Your task to perform on an android device: allow cookies in the chrome app Image 0: 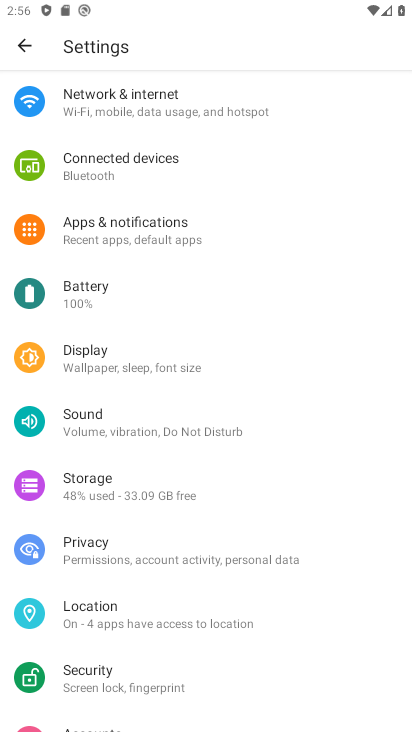
Step 0: press back button
Your task to perform on an android device: allow cookies in the chrome app Image 1: 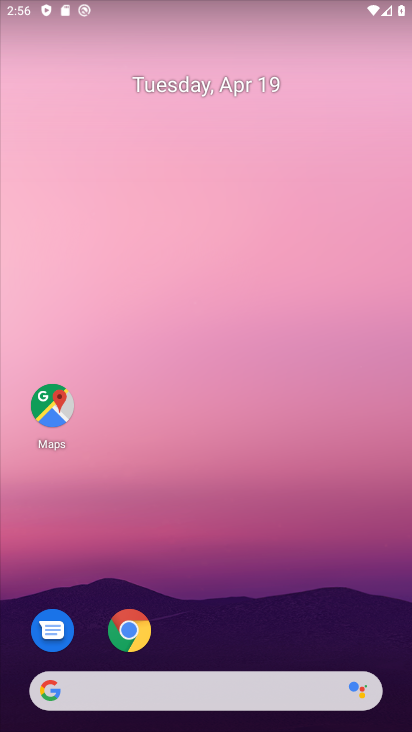
Step 1: click (132, 631)
Your task to perform on an android device: allow cookies in the chrome app Image 2: 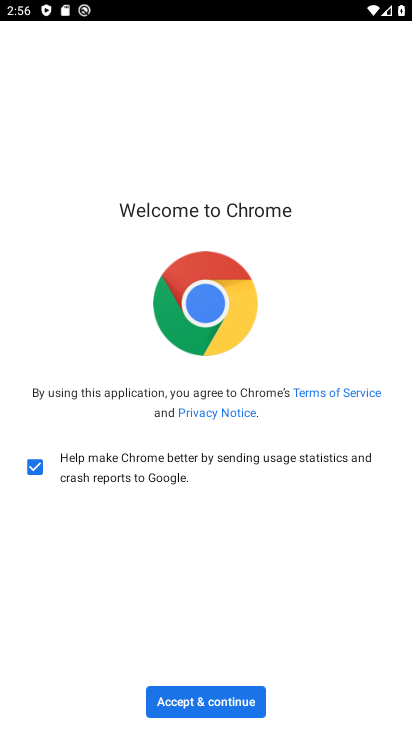
Step 2: click (176, 694)
Your task to perform on an android device: allow cookies in the chrome app Image 3: 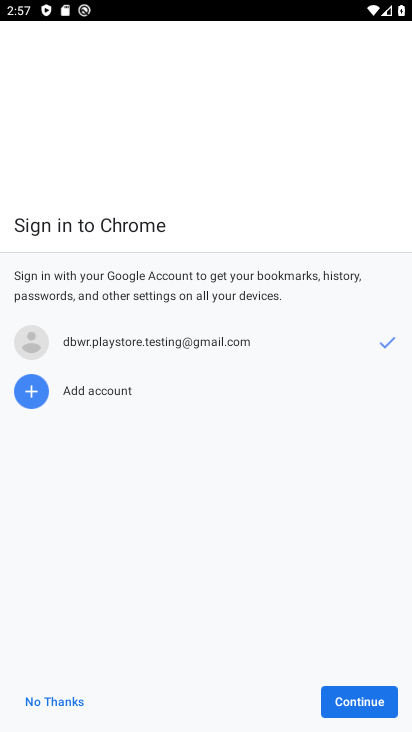
Step 3: click (350, 699)
Your task to perform on an android device: allow cookies in the chrome app Image 4: 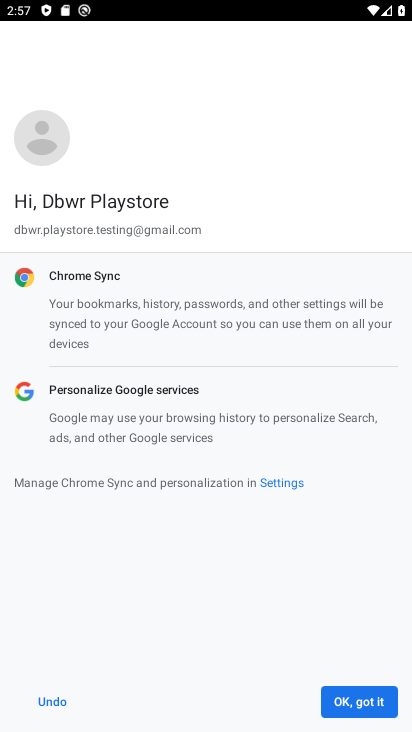
Step 4: click (350, 699)
Your task to perform on an android device: allow cookies in the chrome app Image 5: 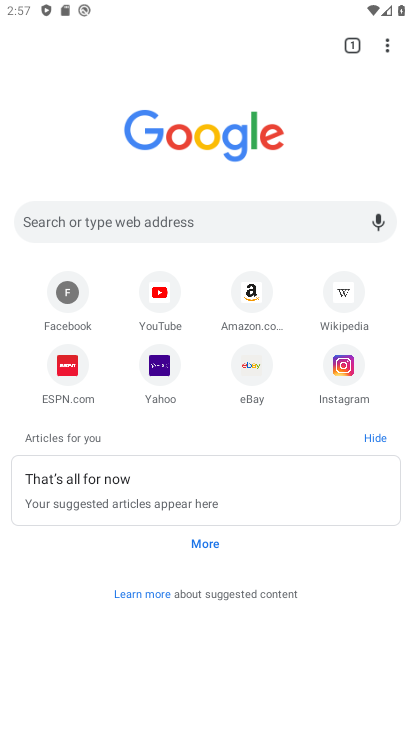
Step 5: click (385, 47)
Your task to perform on an android device: allow cookies in the chrome app Image 6: 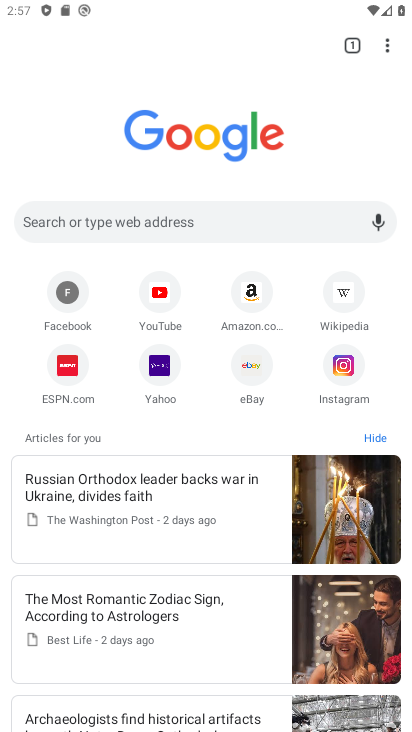
Step 6: click (387, 43)
Your task to perform on an android device: allow cookies in the chrome app Image 7: 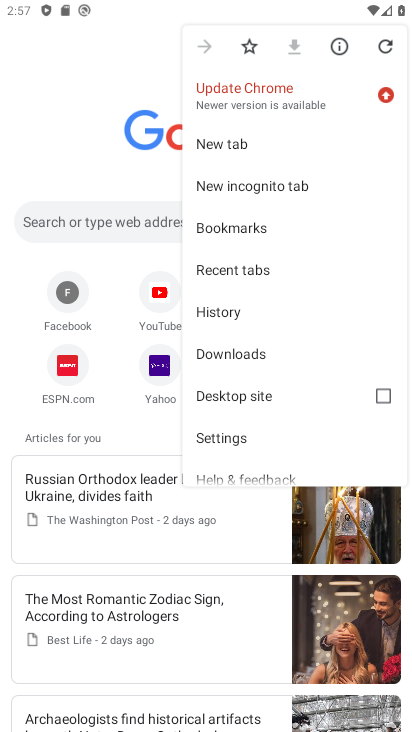
Step 7: click (224, 436)
Your task to perform on an android device: allow cookies in the chrome app Image 8: 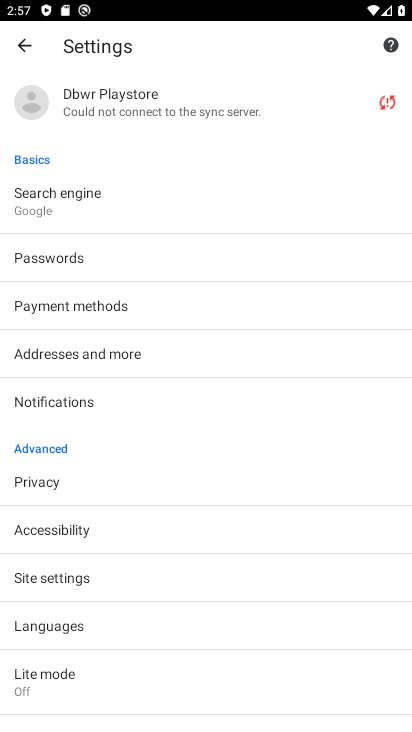
Step 8: click (51, 581)
Your task to perform on an android device: allow cookies in the chrome app Image 9: 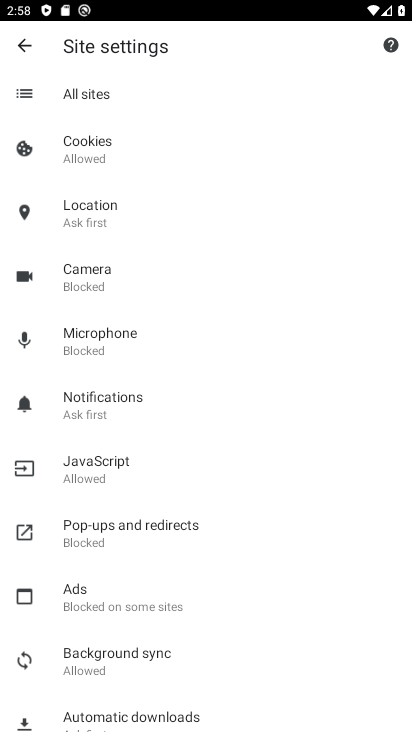
Step 9: click (89, 146)
Your task to perform on an android device: allow cookies in the chrome app Image 10: 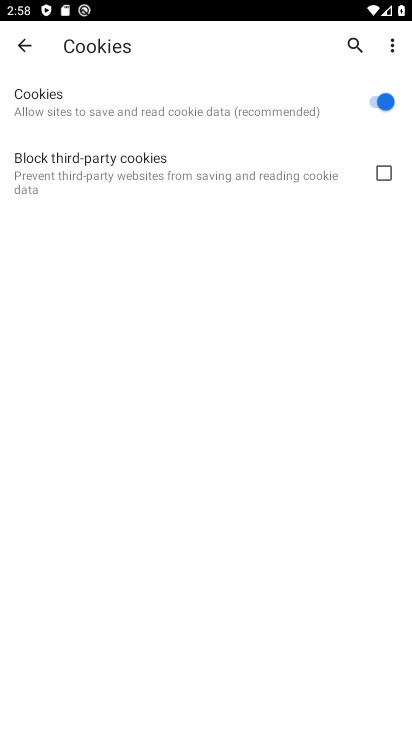
Step 10: task complete